Your task to perform on an android device: Open Google Chrome and click the shortcut for Amazon.com Image 0: 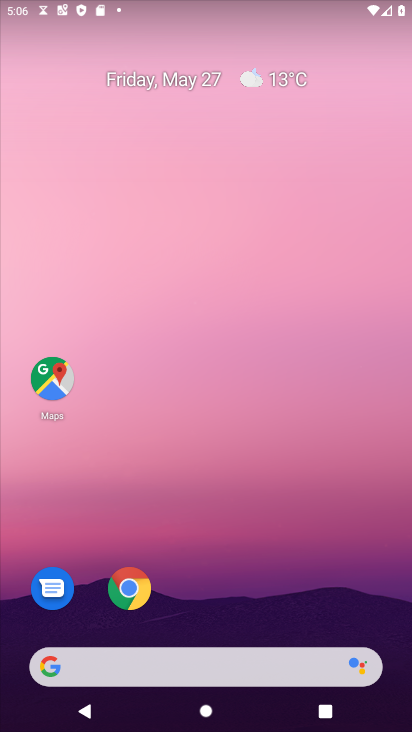
Step 0: click (124, 587)
Your task to perform on an android device: Open Google Chrome and click the shortcut for Amazon.com Image 1: 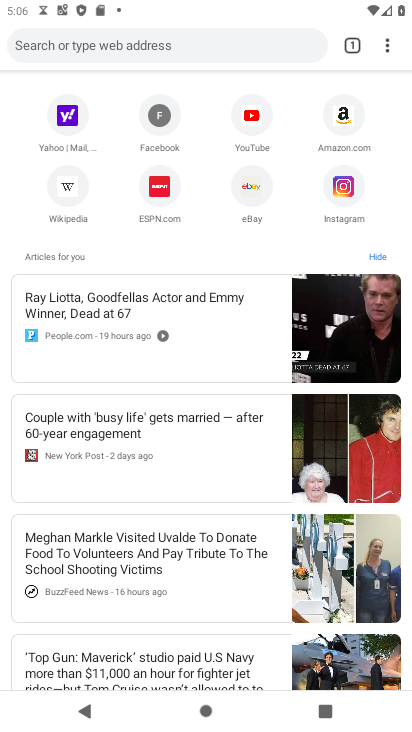
Step 1: click (333, 114)
Your task to perform on an android device: Open Google Chrome and click the shortcut for Amazon.com Image 2: 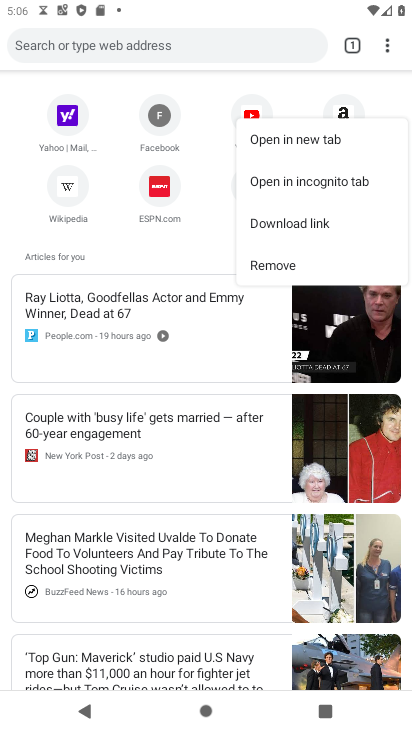
Step 2: click (348, 96)
Your task to perform on an android device: Open Google Chrome and click the shortcut for Amazon.com Image 3: 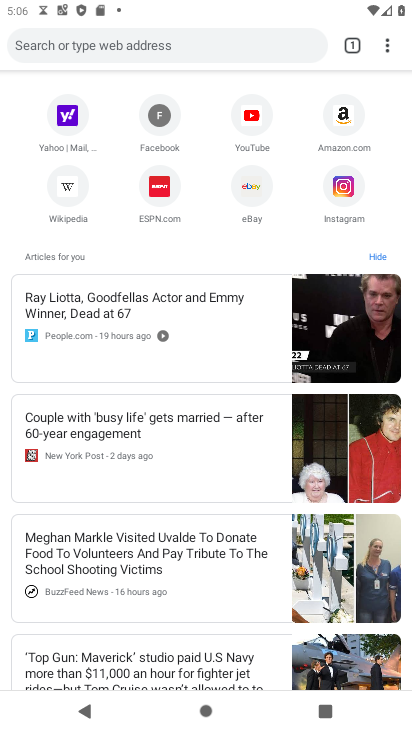
Step 3: click (349, 114)
Your task to perform on an android device: Open Google Chrome and click the shortcut for Amazon.com Image 4: 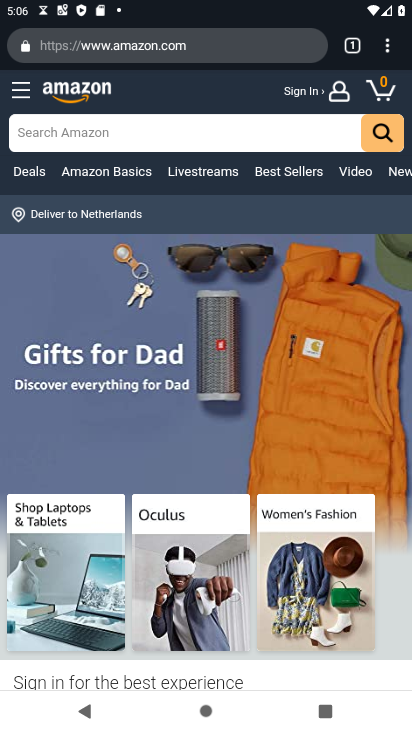
Step 4: task complete